Your task to perform on an android device: Open the Play Movies app and select the watchlist tab. Image 0: 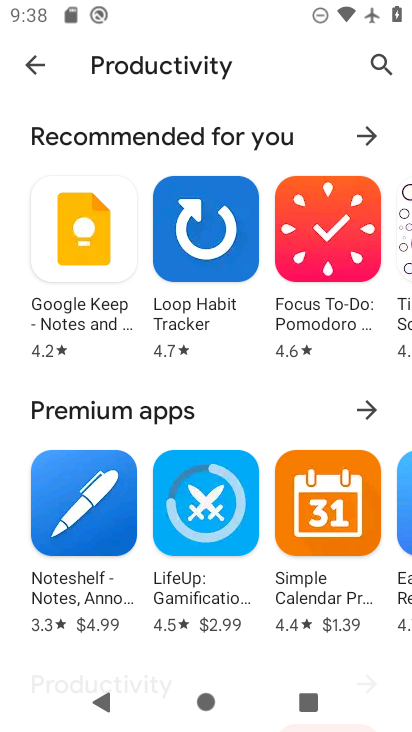
Step 0: press home button
Your task to perform on an android device: Open the Play Movies app and select the watchlist tab. Image 1: 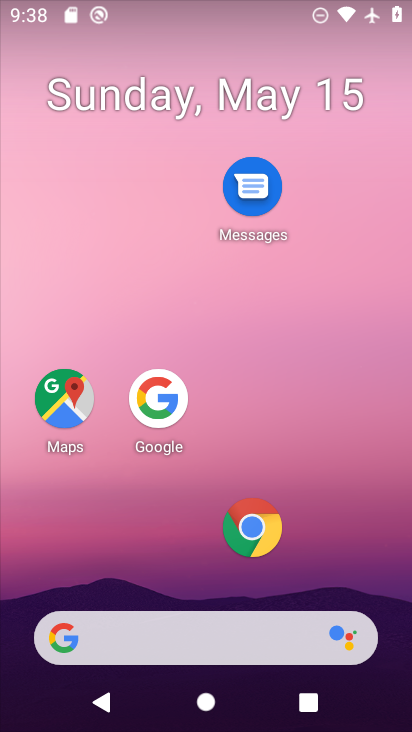
Step 1: drag from (193, 621) to (330, 171)
Your task to perform on an android device: Open the Play Movies app and select the watchlist tab. Image 2: 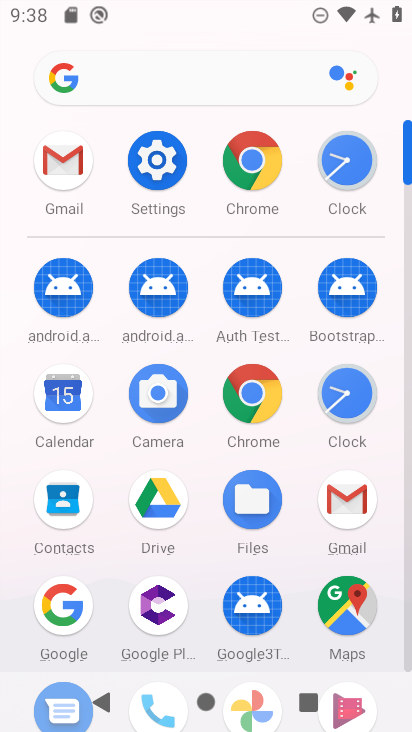
Step 2: click (338, 718)
Your task to perform on an android device: Open the Play Movies app and select the watchlist tab. Image 3: 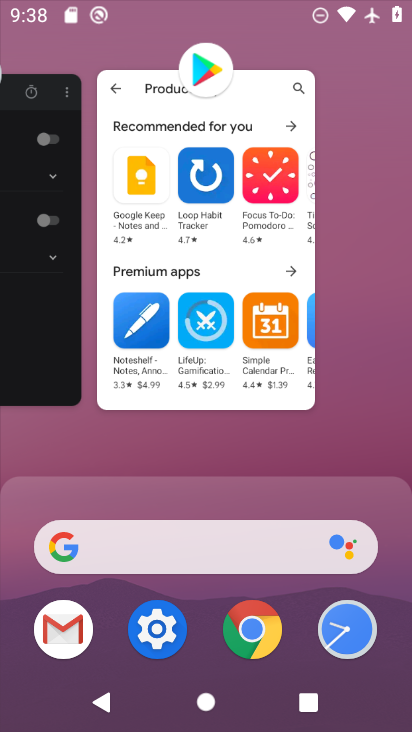
Step 3: click (226, 261)
Your task to perform on an android device: Open the Play Movies app and select the watchlist tab. Image 4: 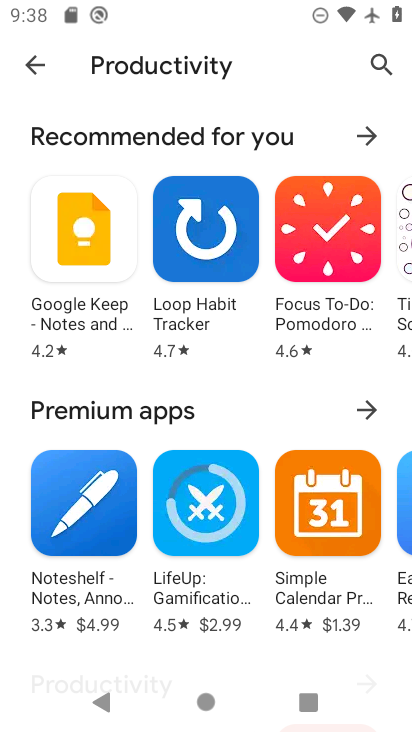
Step 4: press home button
Your task to perform on an android device: Open the Play Movies app and select the watchlist tab. Image 5: 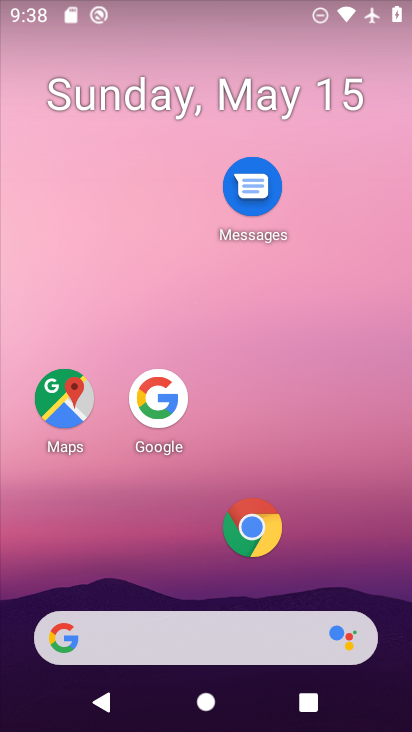
Step 5: drag from (264, 418) to (347, 193)
Your task to perform on an android device: Open the Play Movies app and select the watchlist tab. Image 6: 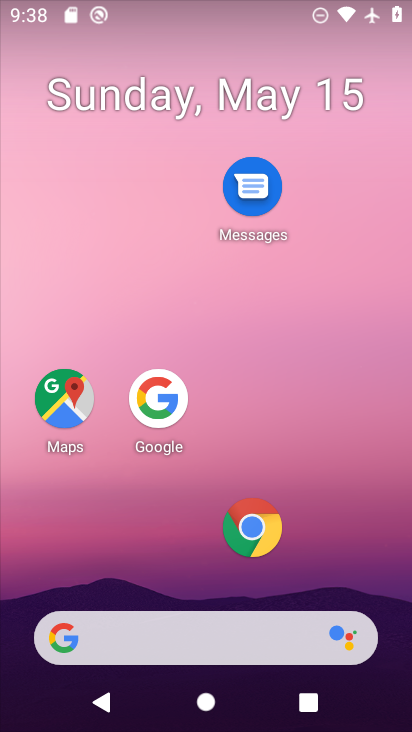
Step 6: drag from (218, 632) to (403, 11)
Your task to perform on an android device: Open the Play Movies app and select the watchlist tab. Image 7: 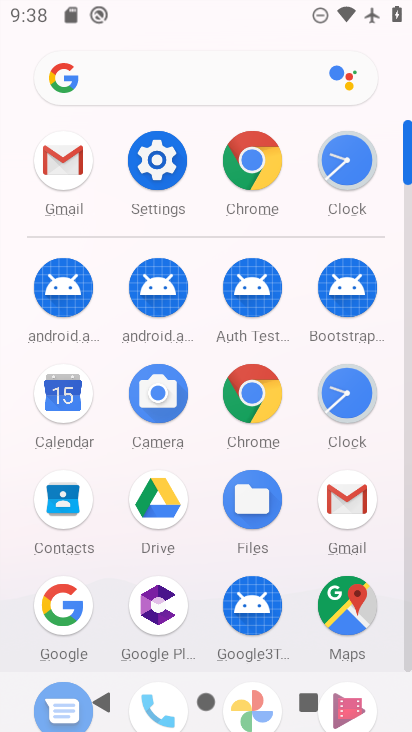
Step 7: drag from (211, 553) to (352, 121)
Your task to perform on an android device: Open the Play Movies app and select the watchlist tab. Image 8: 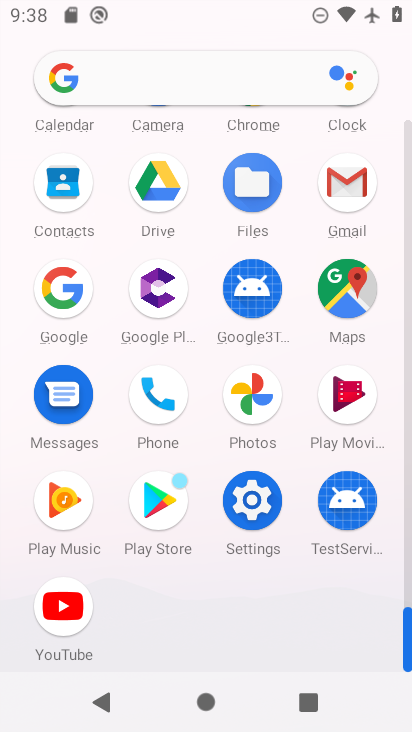
Step 8: click (347, 402)
Your task to perform on an android device: Open the Play Movies app and select the watchlist tab. Image 9: 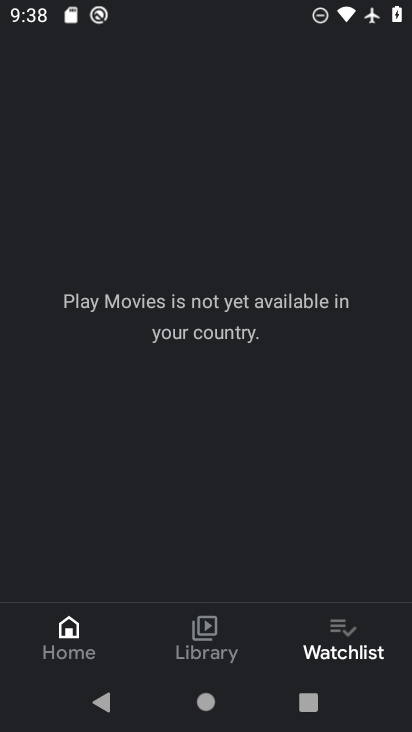
Step 9: task complete